Your task to perform on an android device: find snoozed emails in the gmail app Image 0: 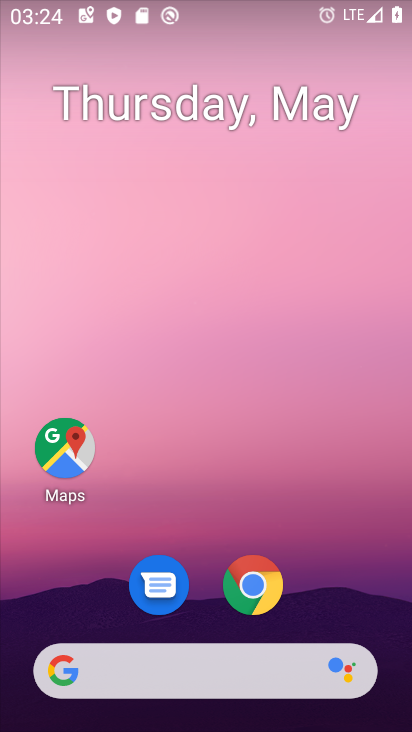
Step 0: drag from (202, 514) to (251, 21)
Your task to perform on an android device: find snoozed emails in the gmail app Image 1: 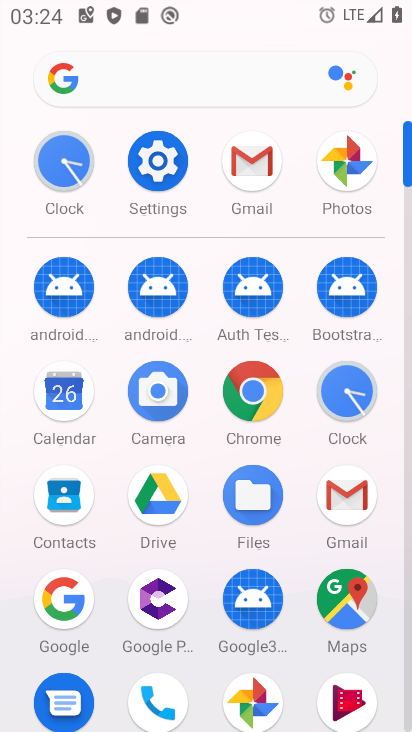
Step 1: click (246, 172)
Your task to perform on an android device: find snoozed emails in the gmail app Image 2: 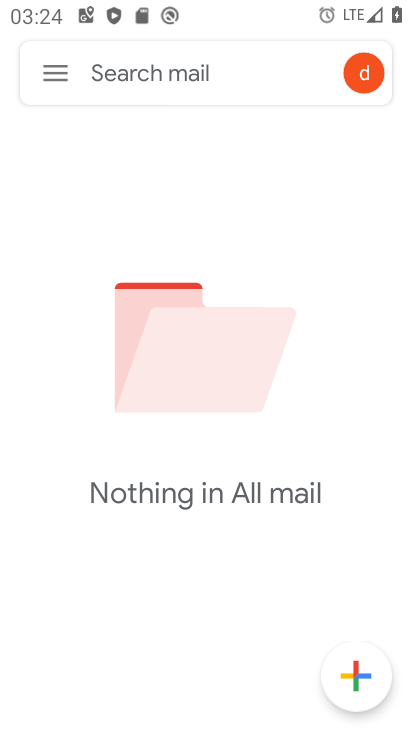
Step 2: click (58, 75)
Your task to perform on an android device: find snoozed emails in the gmail app Image 3: 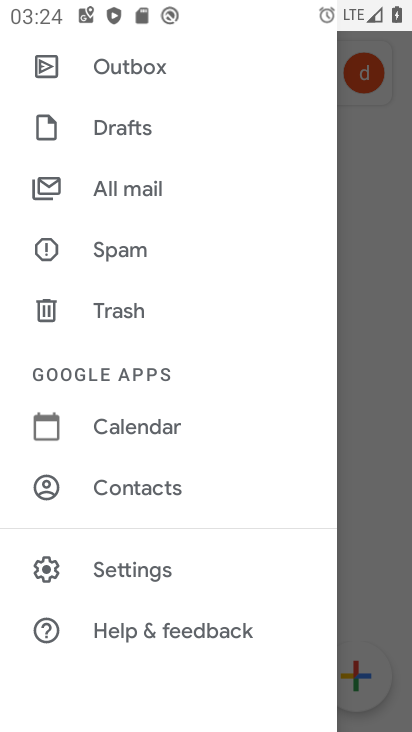
Step 3: drag from (199, 189) to (159, 667)
Your task to perform on an android device: find snoozed emails in the gmail app Image 4: 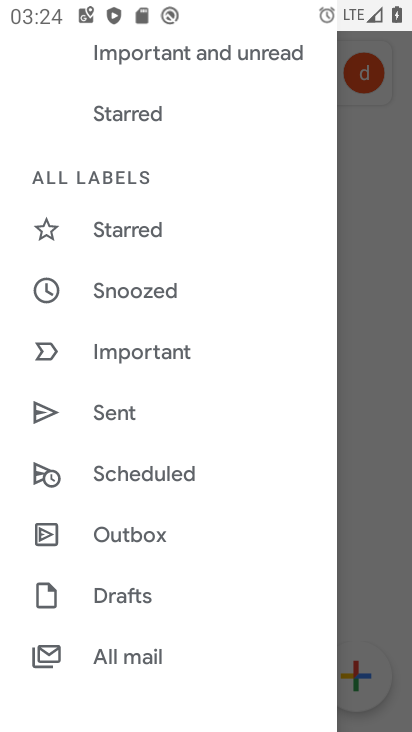
Step 4: click (168, 281)
Your task to perform on an android device: find snoozed emails in the gmail app Image 5: 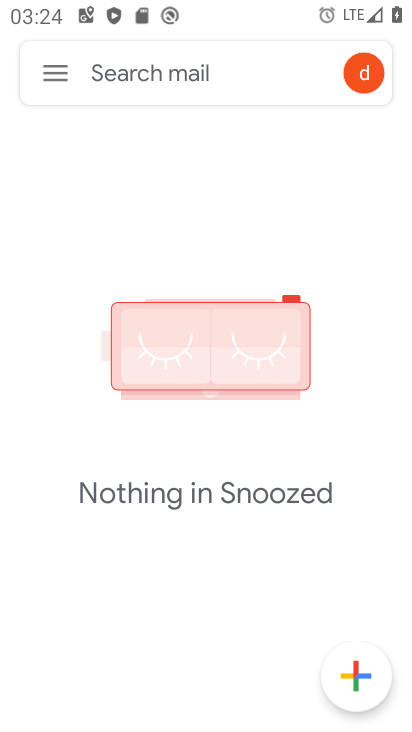
Step 5: task complete